Your task to perform on an android device: turn on sleep mode Image 0: 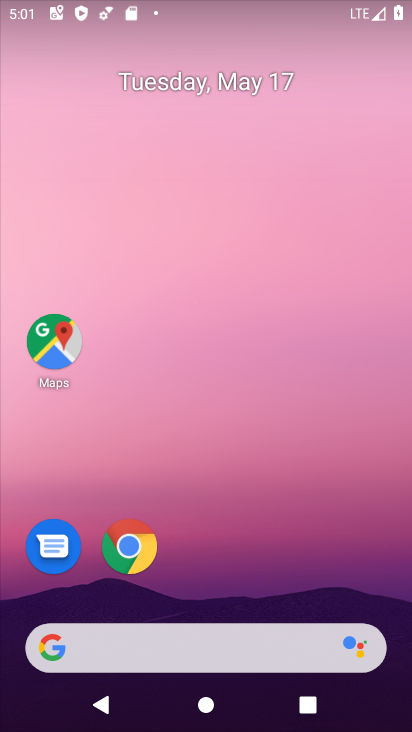
Step 0: drag from (246, 514) to (300, 5)
Your task to perform on an android device: turn on sleep mode Image 1: 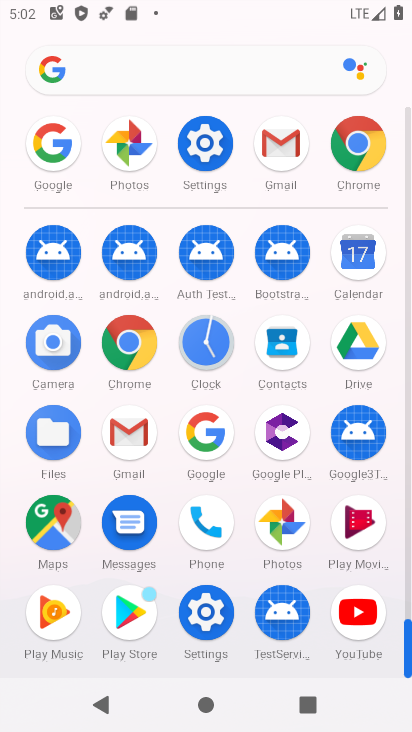
Step 1: click (210, 634)
Your task to perform on an android device: turn on sleep mode Image 2: 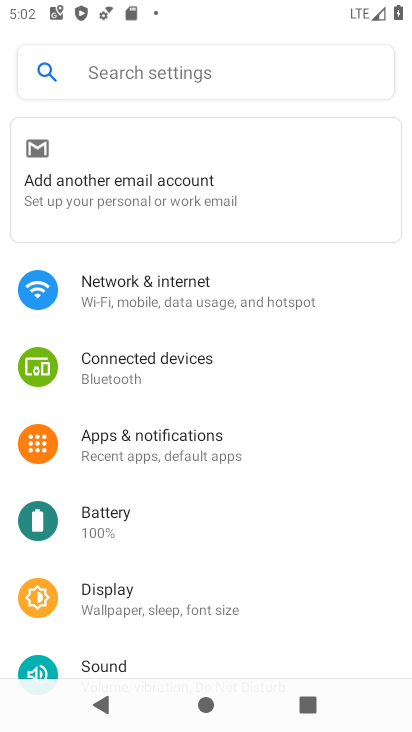
Step 2: task complete